Your task to perform on an android device: change your default location settings in chrome Image 0: 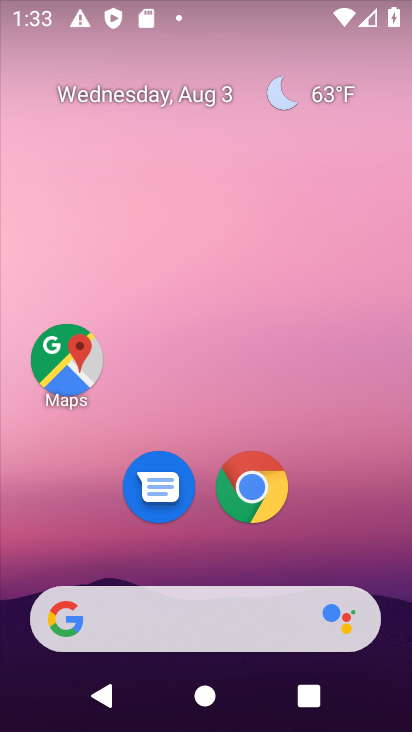
Step 0: drag from (282, 516) to (312, 80)
Your task to perform on an android device: change your default location settings in chrome Image 1: 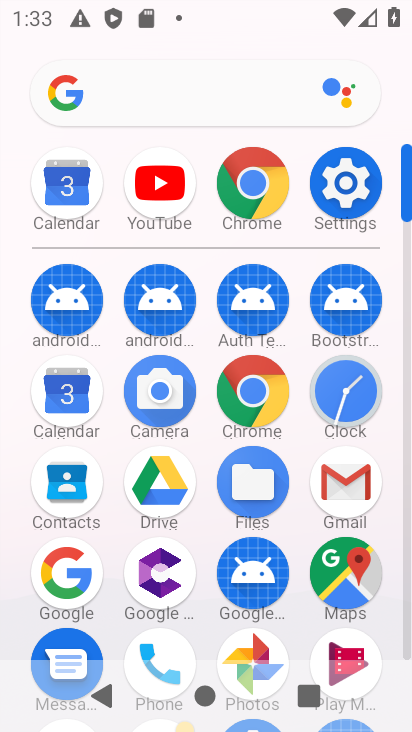
Step 1: click (251, 379)
Your task to perform on an android device: change your default location settings in chrome Image 2: 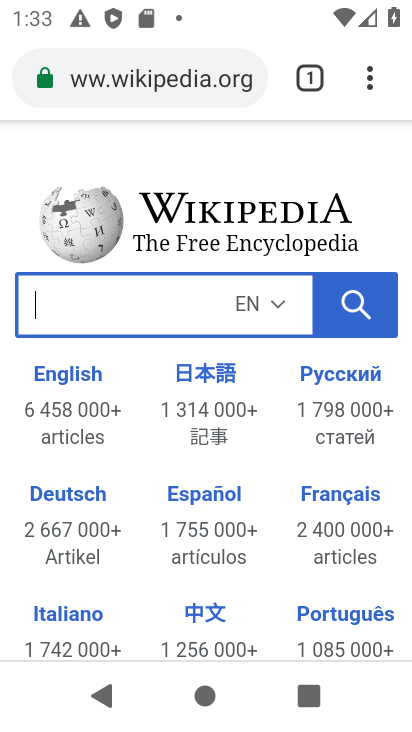
Step 2: drag from (365, 82) to (91, 532)
Your task to perform on an android device: change your default location settings in chrome Image 3: 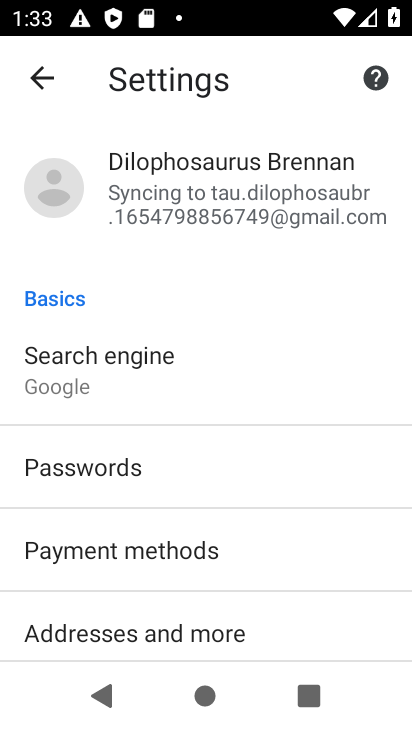
Step 3: click (71, 379)
Your task to perform on an android device: change your default location settings in chrome Image 4: 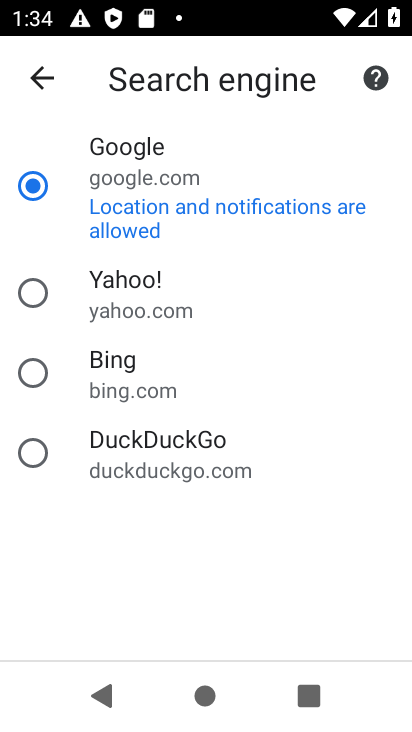
Step 4: task complete